Your task to perform on an android device: Do I have any events this weekend? Image 0: 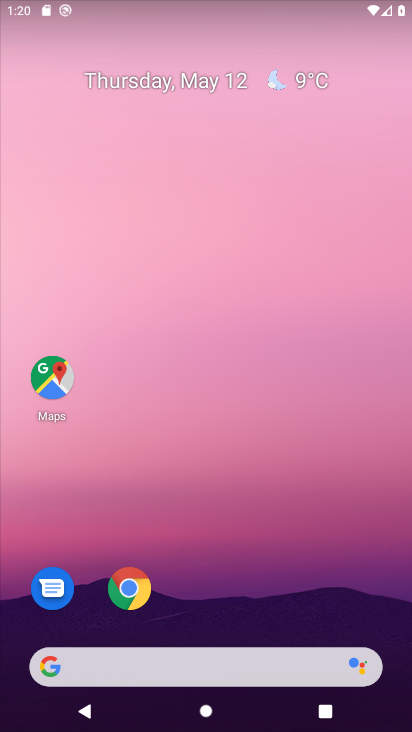
Step 0: drag from (306, 523) to (309, 28)
Your task to perform on an android device: Do I have any events this weekend? Image 1: 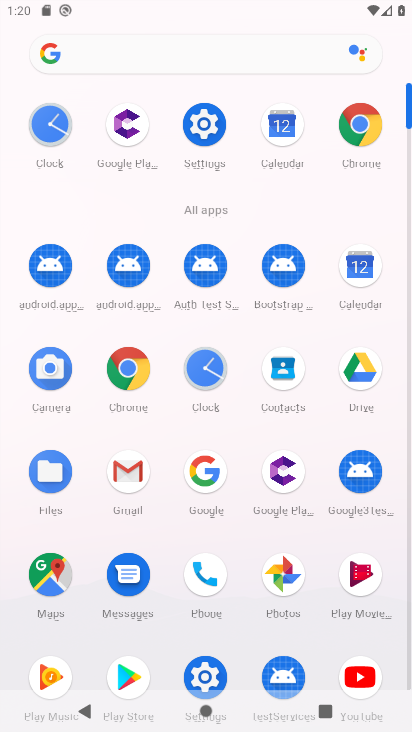
Step 1: click (342, 279)
Your task to perform on an android device: Do I have any events this weekend? Image 2: 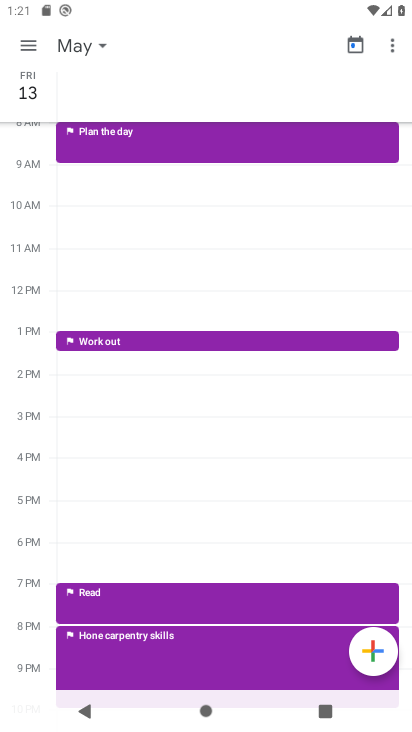
Step 2: click (61, 62)
Your task to perform on an android device: Do I have any events this weekend? Image 3: 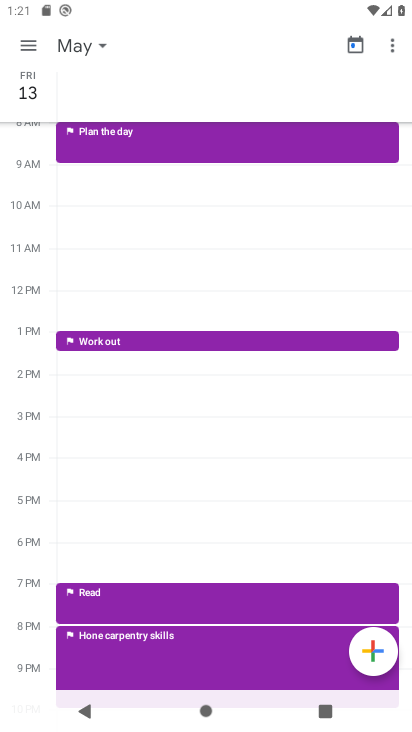
Step 3: click (79, 38)
Your task to perform on an android device: Do I have any events this weekend? Image 4: 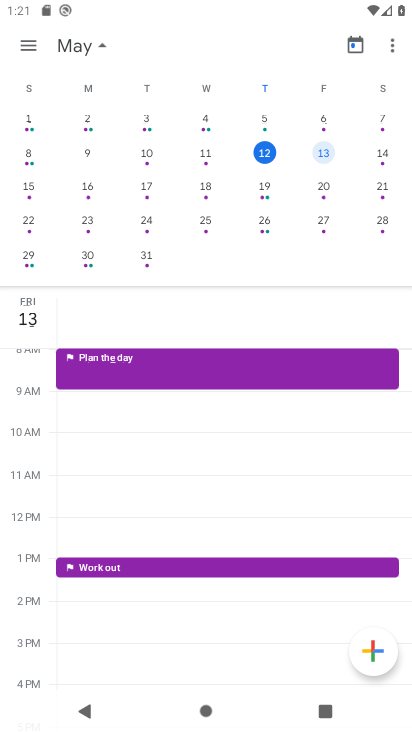
Step 4: click (324, 163)
Your task to perform on an android device: Do I have any events this weekend? Image 5: 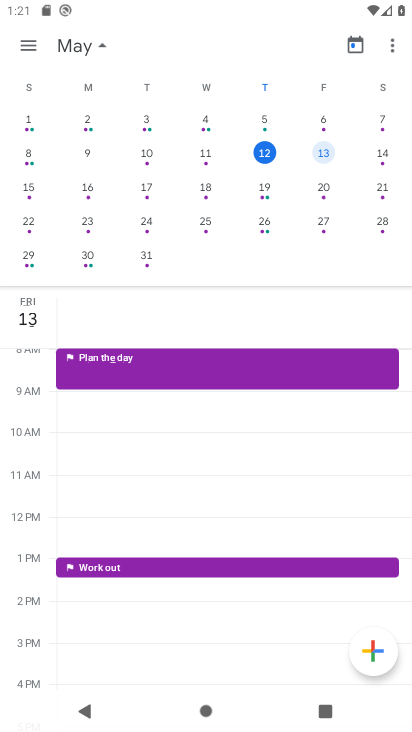
Step 5: task complete